Your task to perform on an android device: Go to Yahoo.com Image 0: 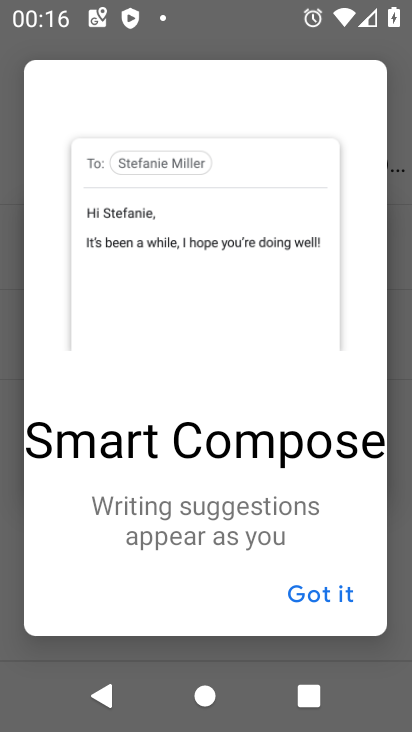
Step 0: press home button
Your task to perform on an android device: Go to Yahoo.com Image 1: 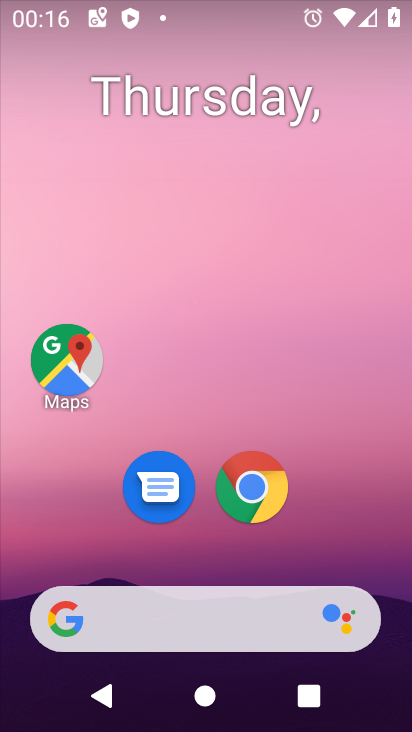
Step 1: click (257, 494)
Your task to perform on an android device: Go to Yahoo.com Image 2: 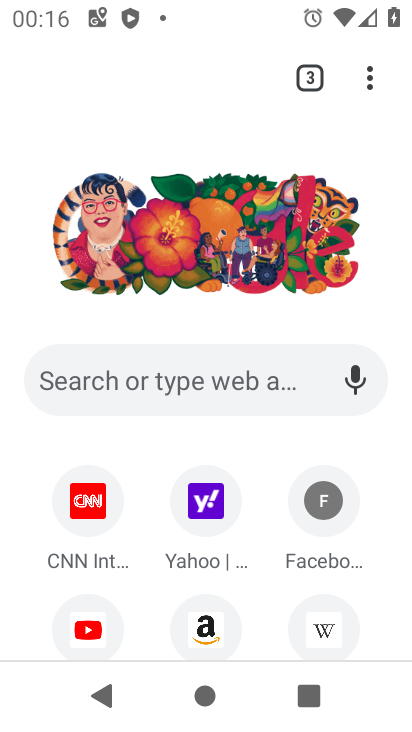
Step 2: click (203, 511)
Your task to perform on an android device: Go to Yahoo.com Image 3: 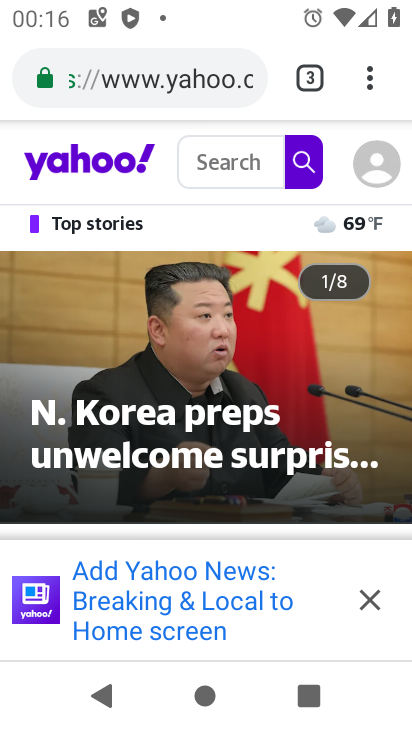
Step 3: task complete